Your task to perform on an android device: Open Android settings Image 0: 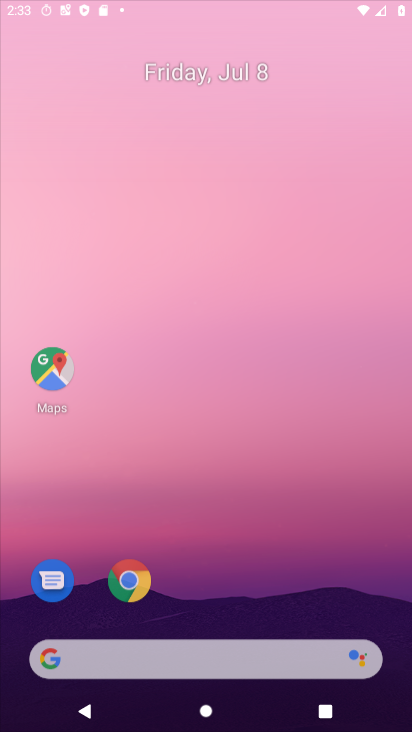
Step 0: press home button
Your task to perform on an android device: Open Android settings Image 1: 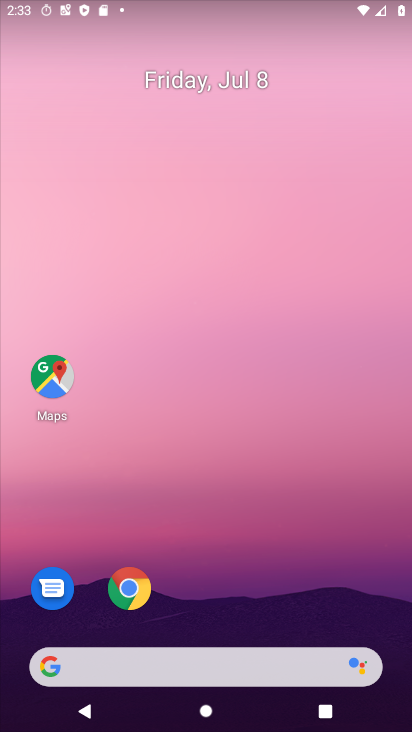
Step 1: drag from (219, 634) to (233, 31)
Your task to perform on an android device: Open Android settings Image 2: 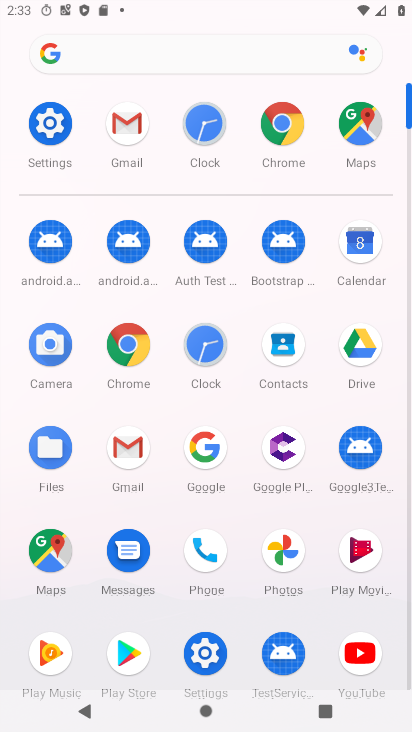
Step 2: click (44, 120)
Your task to perform on an android device: Open Android settings Image 3: 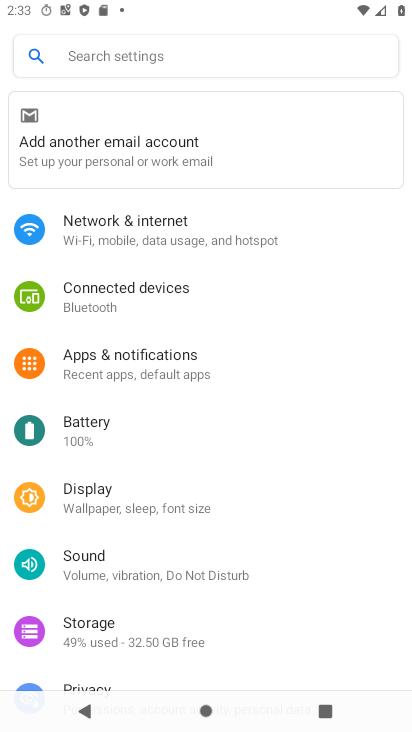
Step 3: task complete